Your task to perform on an android device: Is it going to rain today? Image 0: 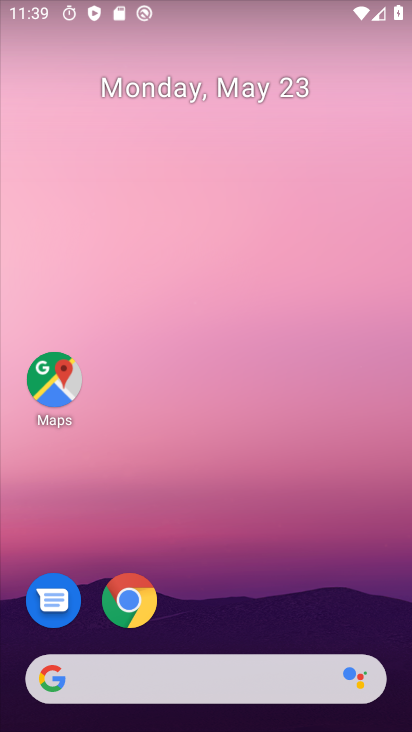
Step 0: drag from (318, 586) to (270, 84)
Your task to perform on an android device: Is it going to rain today? Image 1: 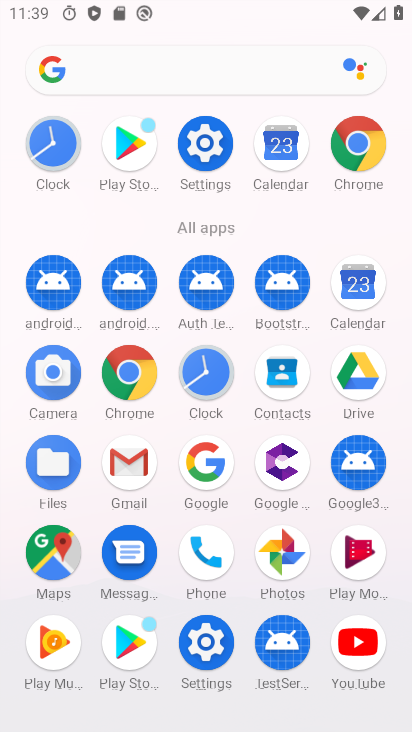
Step 1: click (130, 390)
Your task to perform on an android device: Is it going to rain today? Image 2: 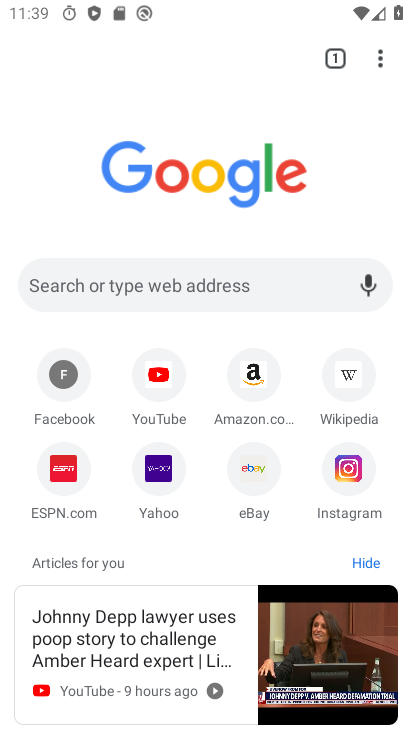
Step 2: click (169, 290)
Your task to perform on an android device: Is it going to rain today? Image 3: 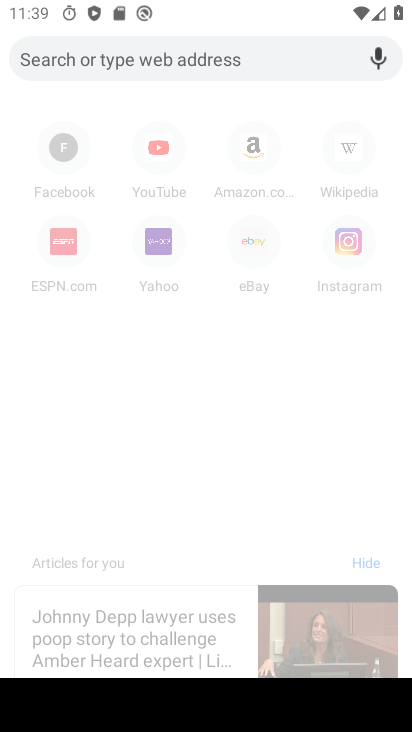
Step 3: type "weather"
Your task to perform on an android device: Is it going to rain today? Image 4: 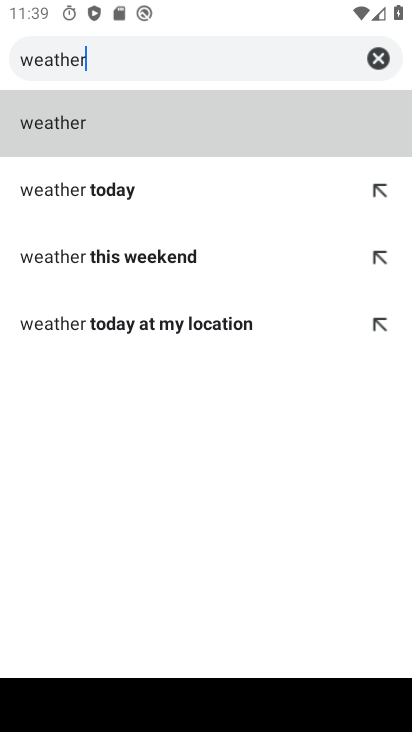
Step 4: click (43, 128)
Your task to perform on an android device: Is it going to rain today? Image 5: 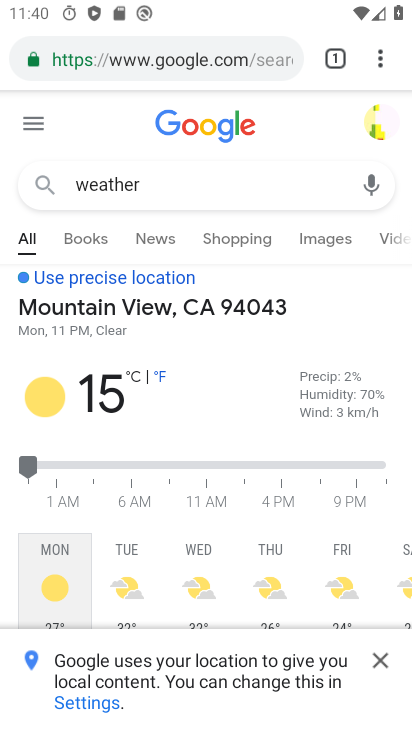
Step 5: task complete